Your task to perform on an android device: Search for "corsair k70" on target.com, select the first entry, and add it to the cart. Image 0: 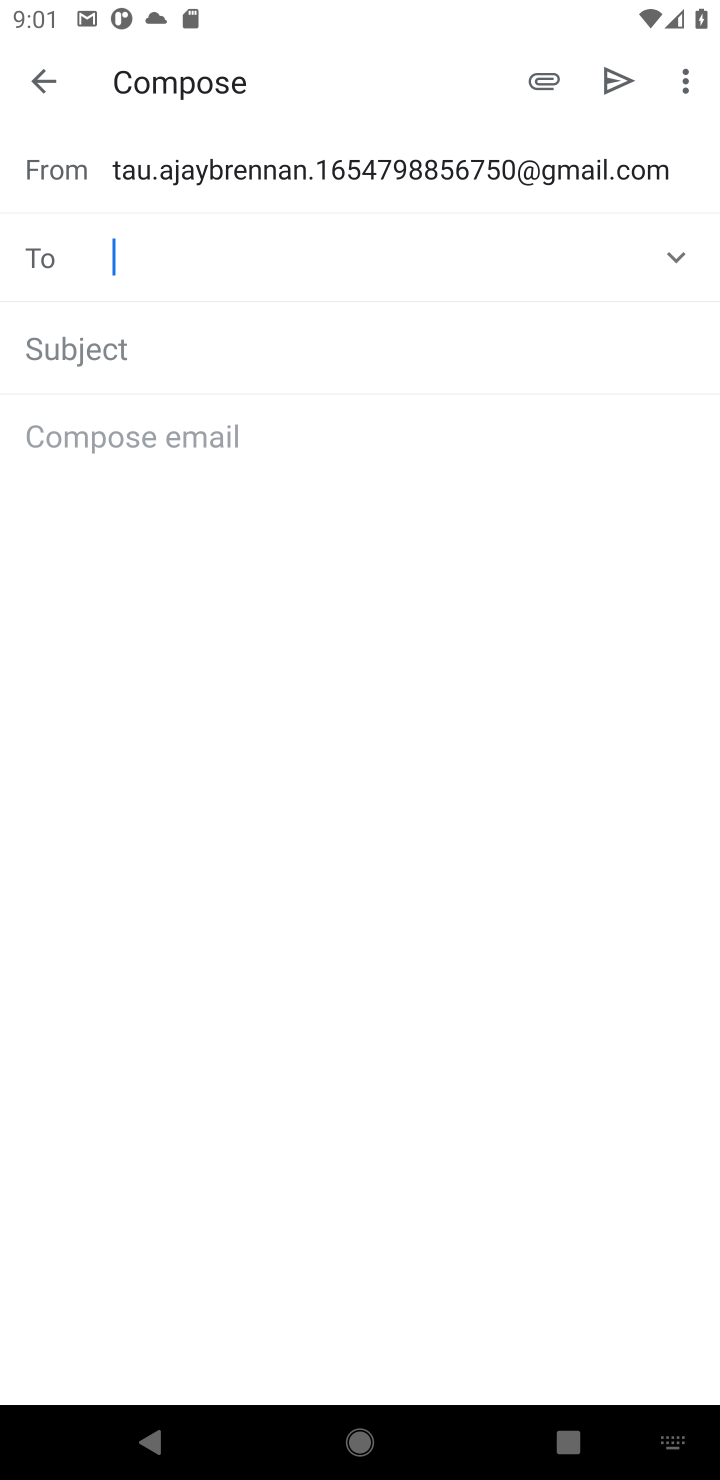
Step 0: press home button
Your task to perform on an android device: Search for "corsair k70" on target.com, select the first entry, and add it to the cart. Image 1: 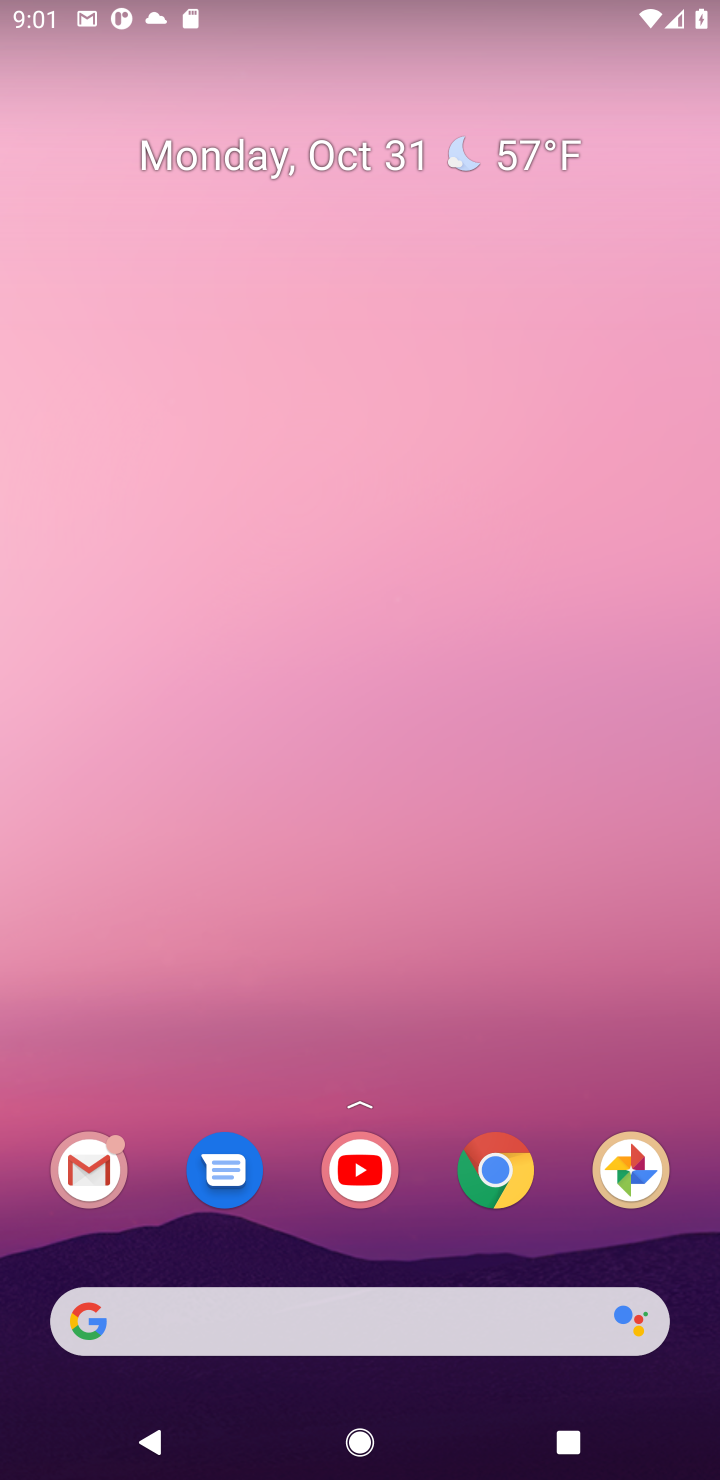
Step 1: click (468, 1153)
Your task to perform on an android device: Search for "corsair k70" on target.com, select the first entry, and add it to the cart. Image 2: 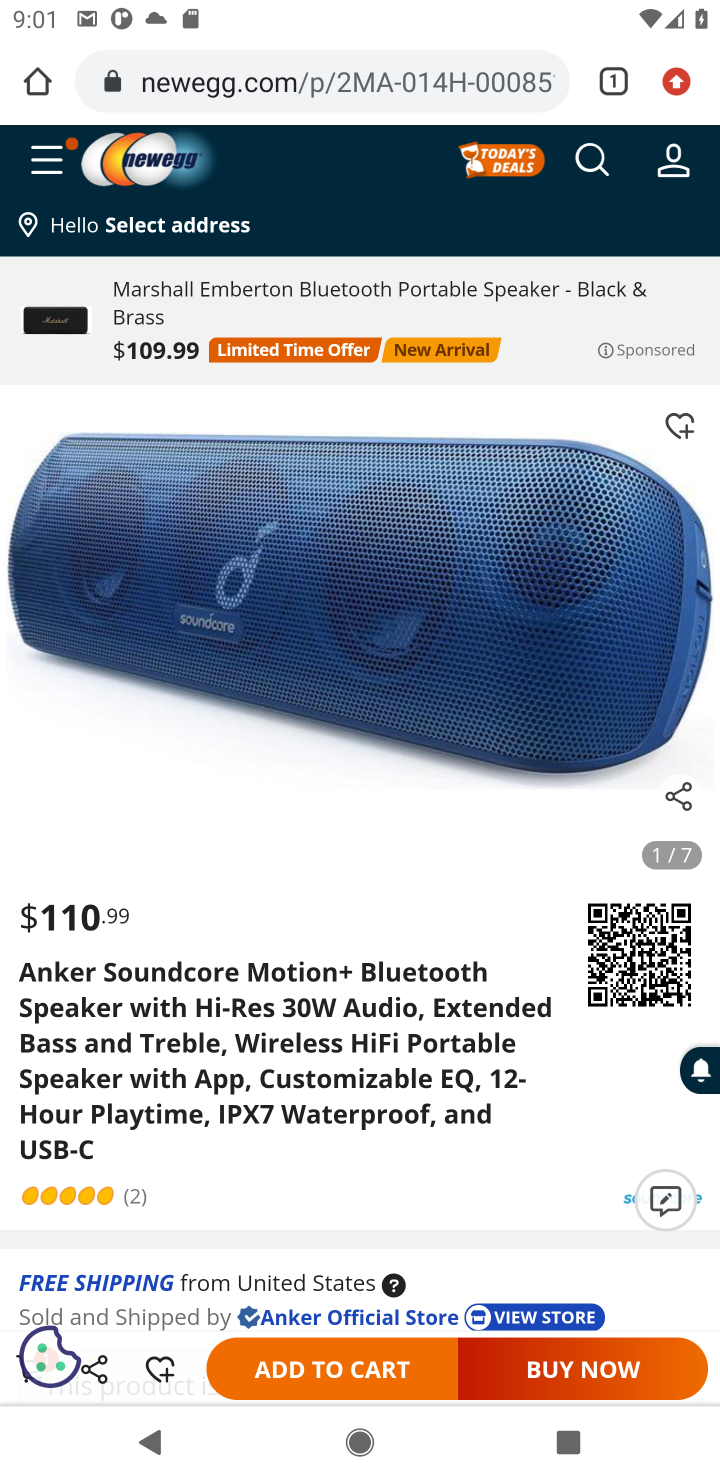
Step 2: click (416, 65)
Your task to perform on an android device: Search for "corsair k70" on target.com, select the first entry, and add it to the cart. Image 3: 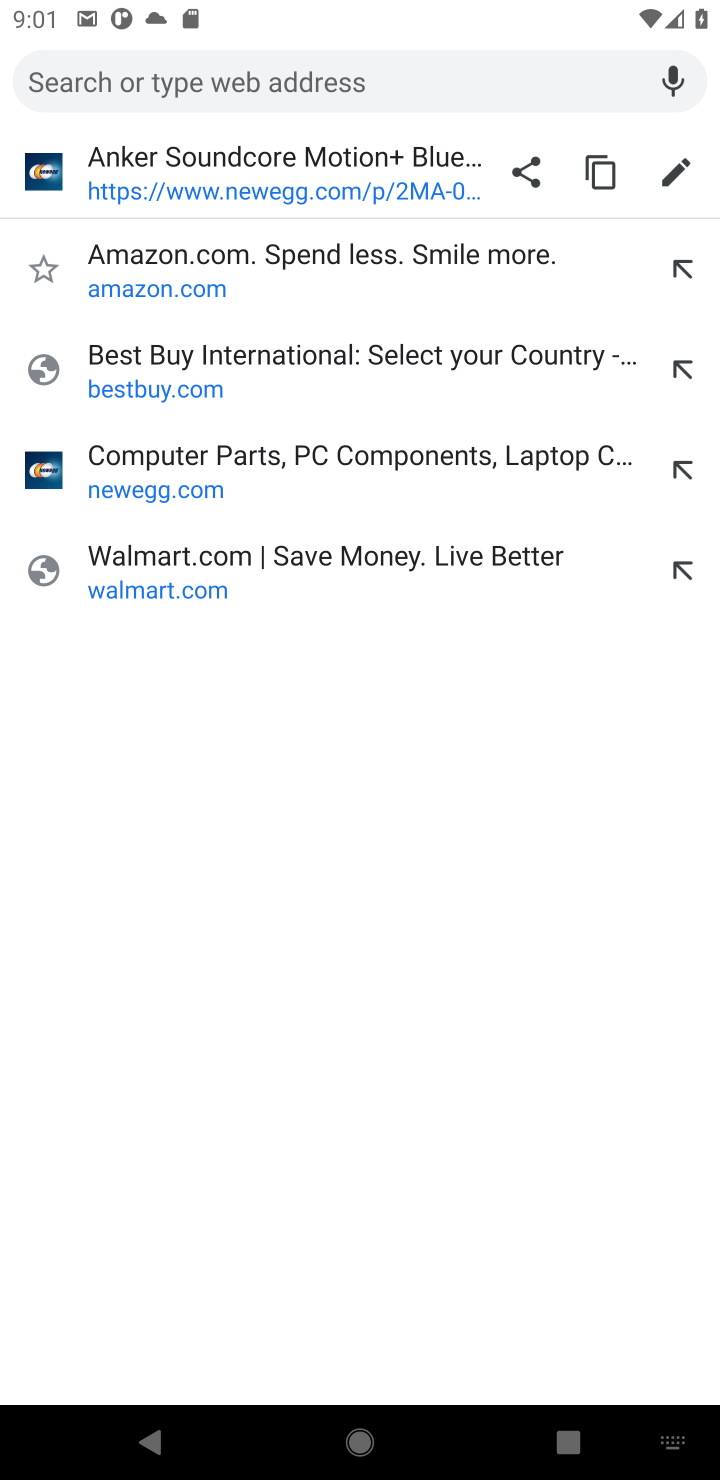
Step 3: type "target"
Your task to perform on an android device: Search for "corsair k70" on target.com, select the first entry, and add it to the cart. Image 4: 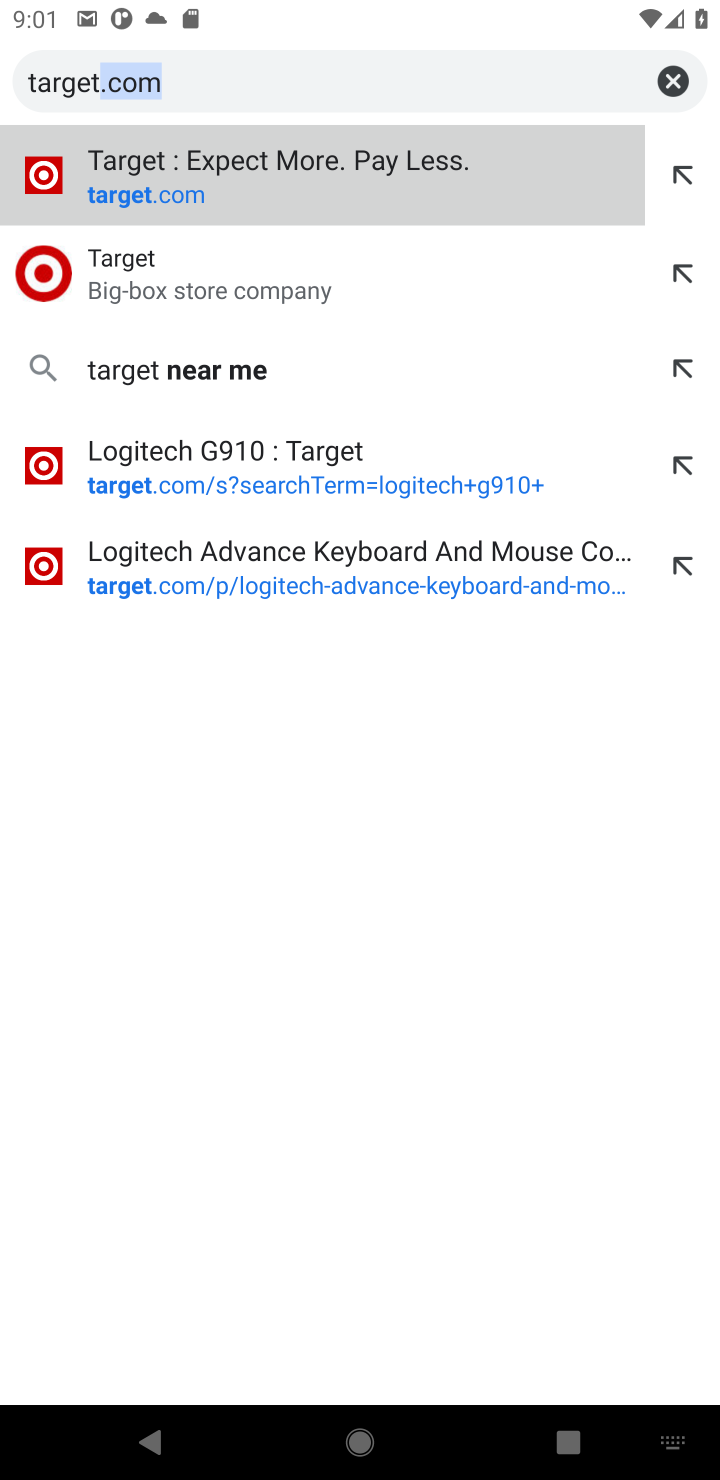
Step 4: click (203, 211)
Your task to perform on an android device: Search for "corsair k70" on target.com, select the first entry, and add it to the cart. Image 5: 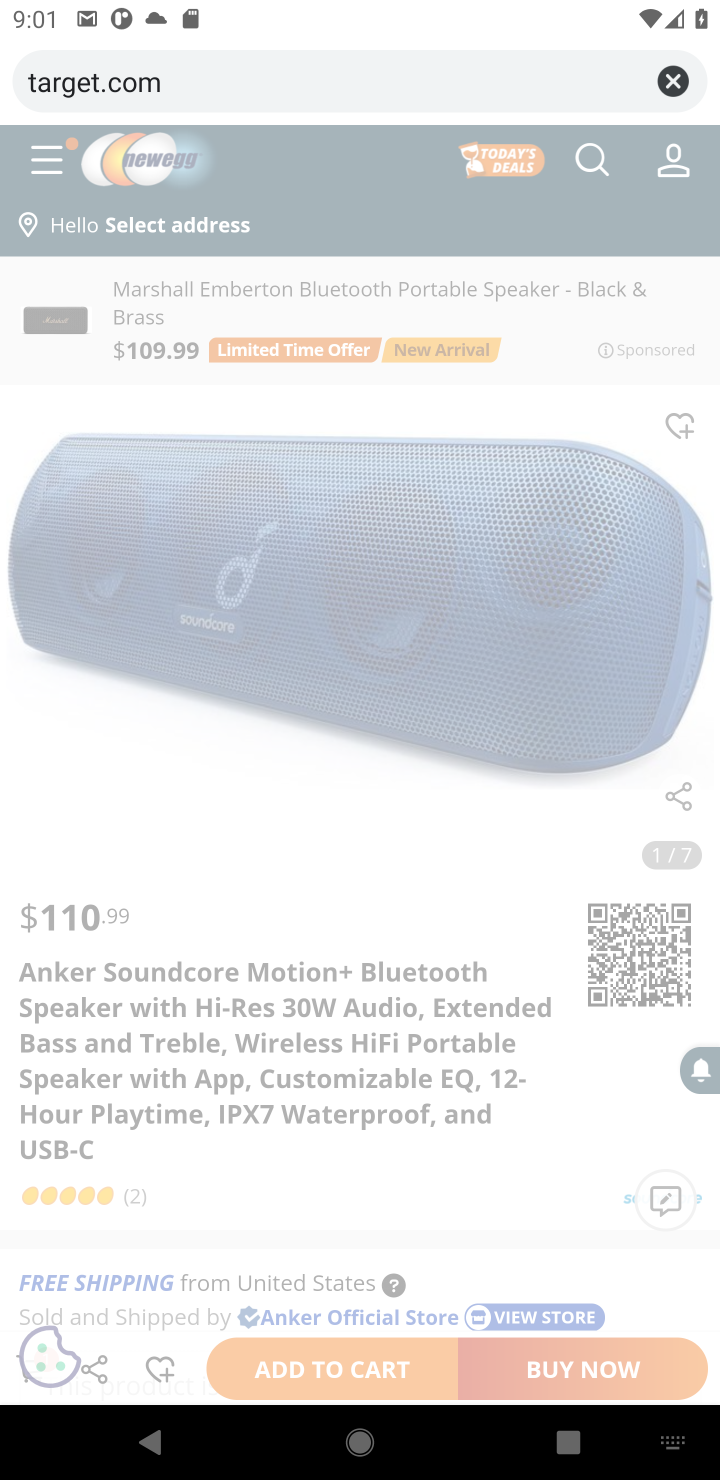
Step 5: click (179, 192)
Your task to perform on an android device: Search for "corsair k70" on target.com, select the first entry, and add it to the cart. Image 6: 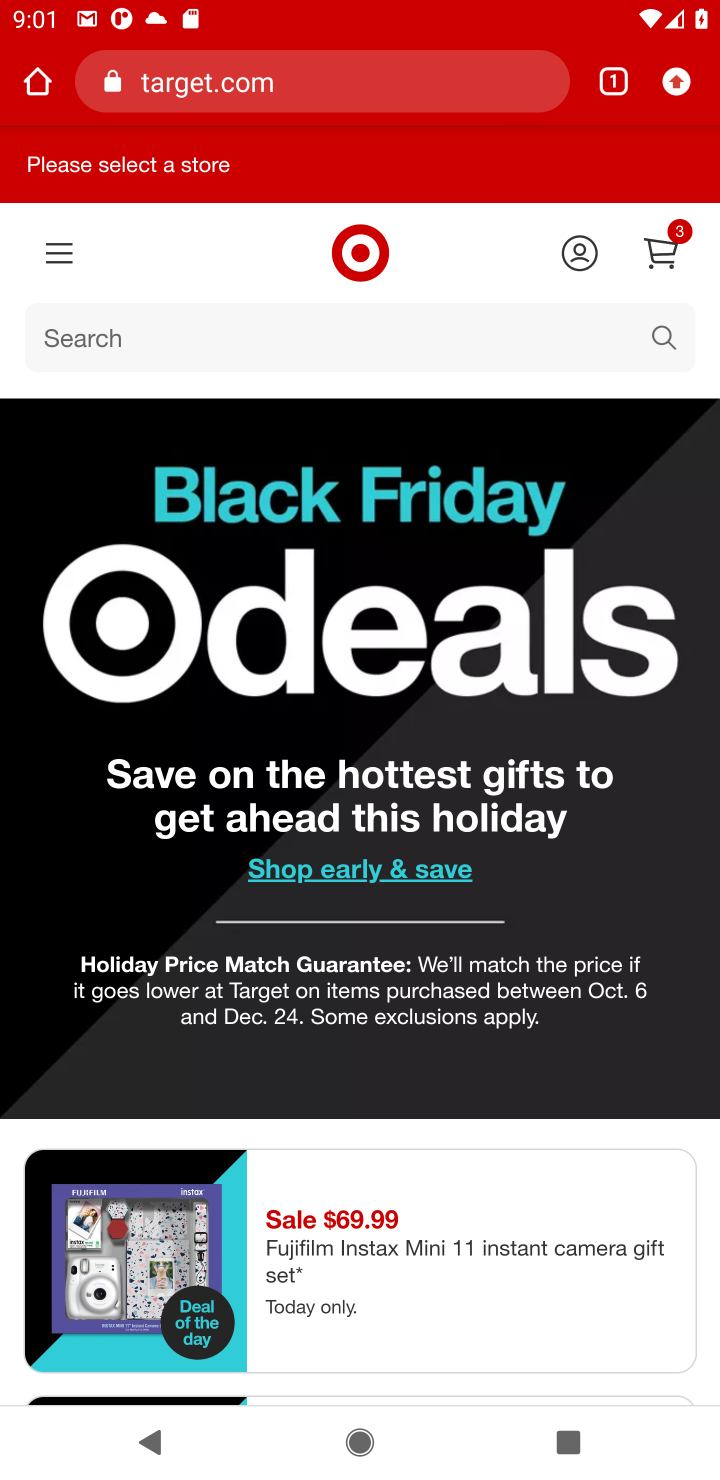
Step 6: click (143, 345)
Your task to perform on an android device: Search for "corsair k70" on target.com, select the first entry, and add it to the cart. Image 7: 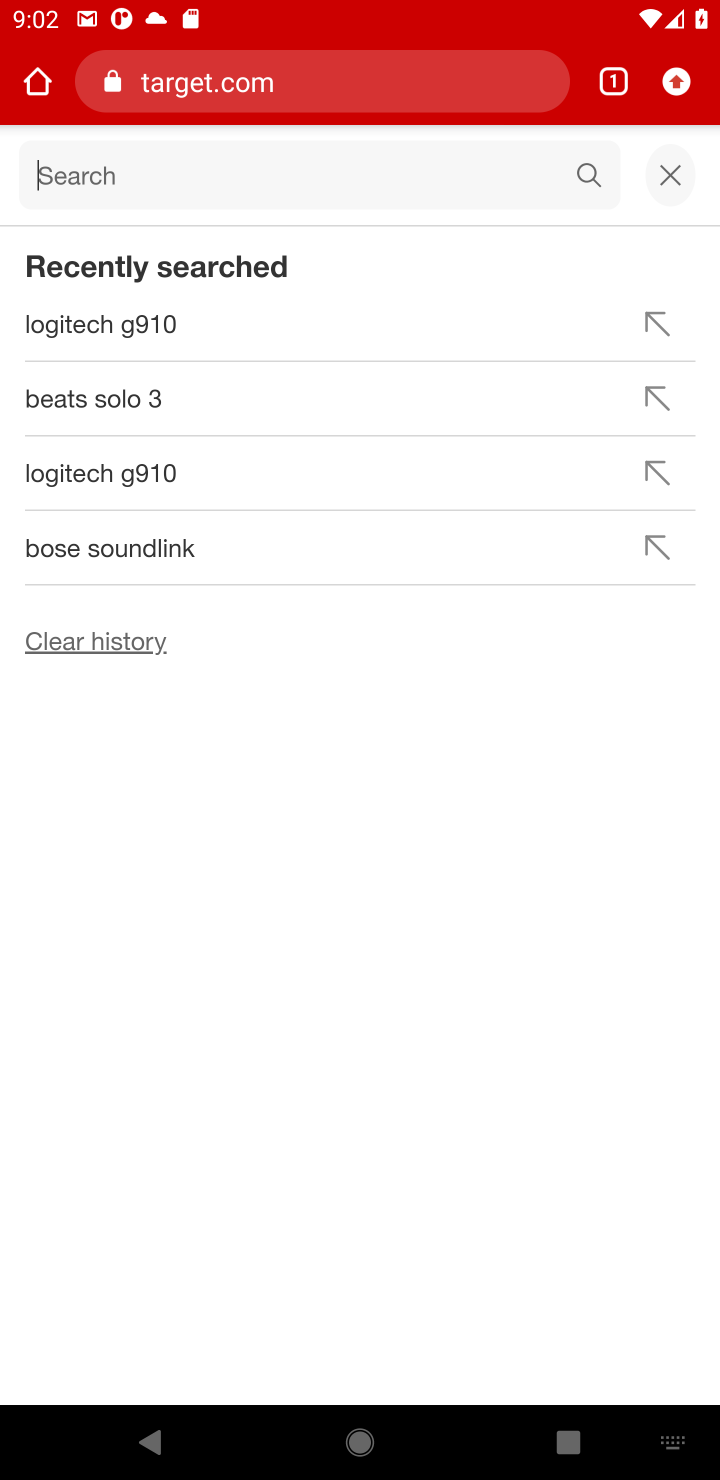
Step 7: type "corsair k70"
Your task to perform on an android device: Search for "corsair k70" on target.com, select the first entry, and add it to the cart. Image 8: 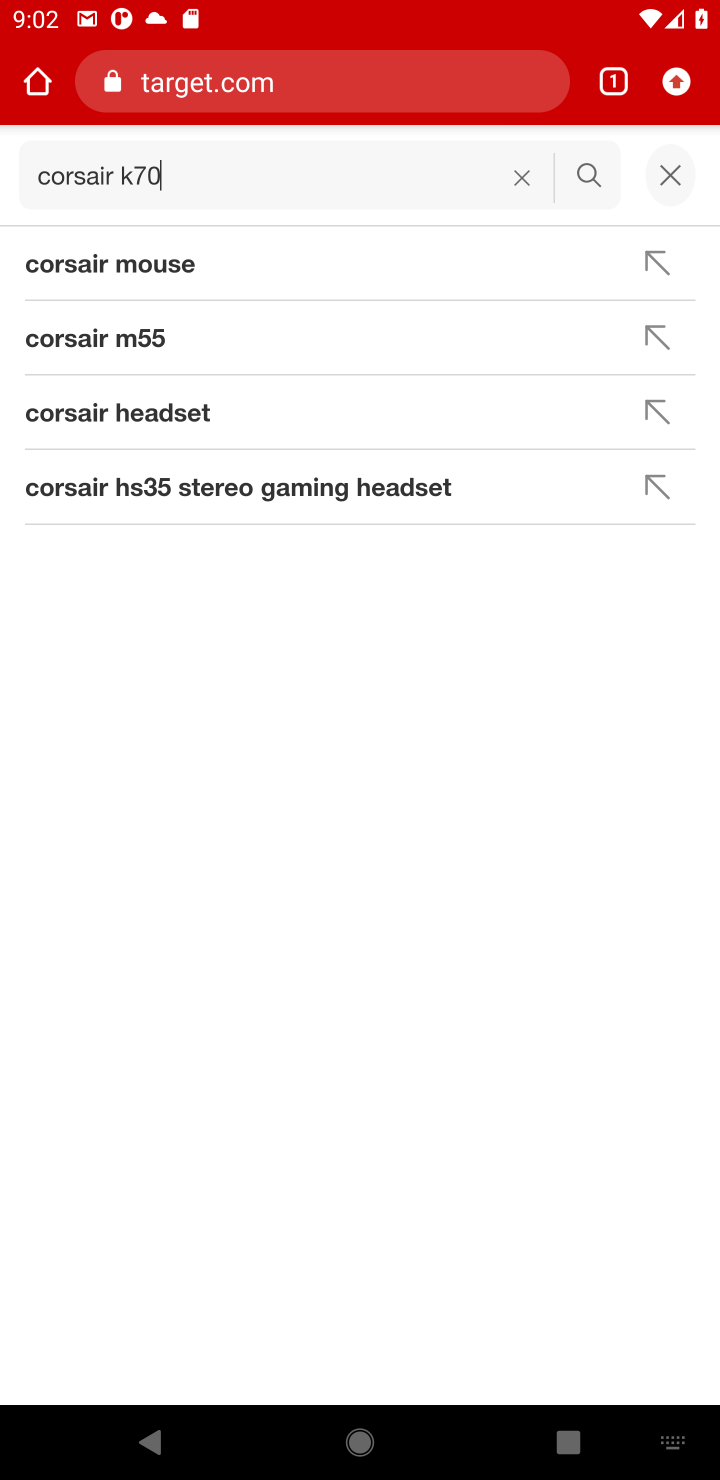
Step 8: click (606, 196)
Your task to perform on an android device: Search for "corsair k70" on target.com, select the first entry, and add it to the cart. Image 9: 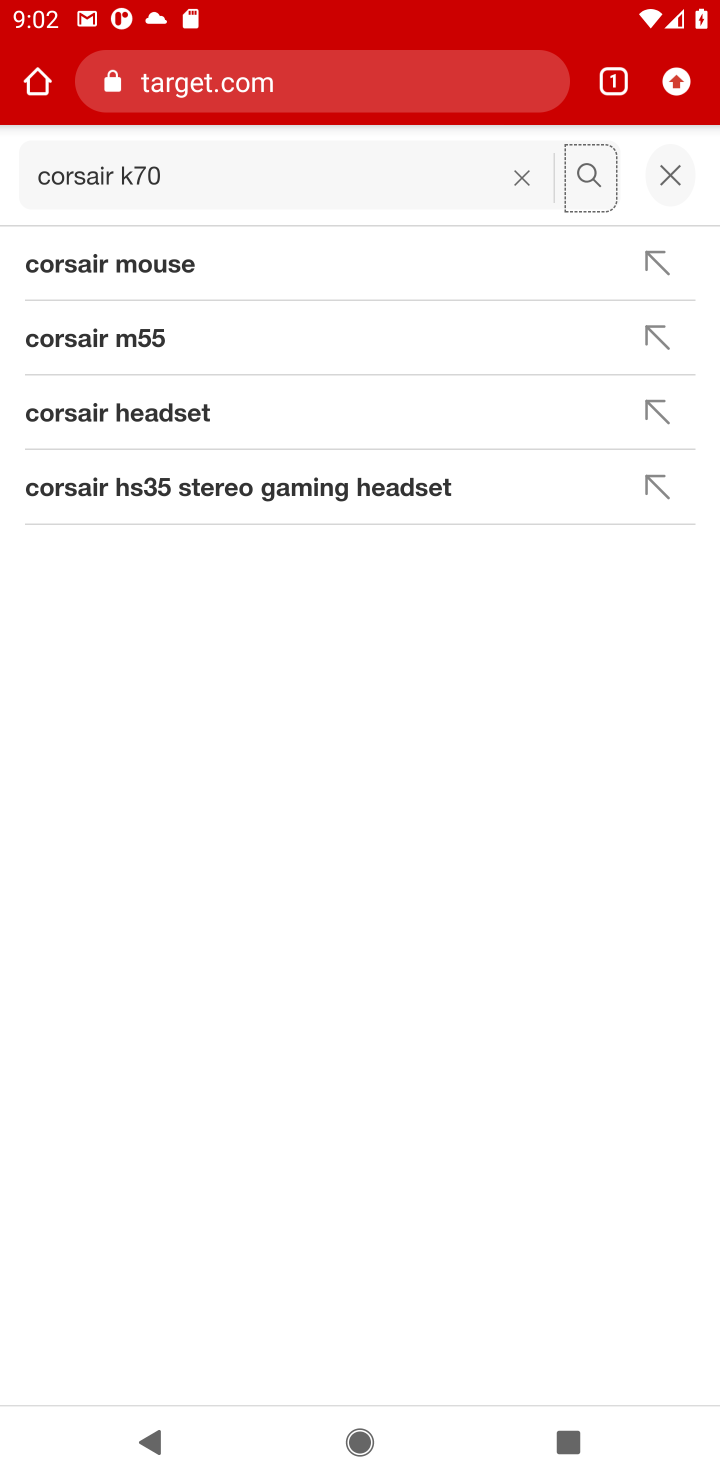
Step 9: click (592, 181)
Your task to perform on an android device: Search for "corsair k70" on target.com, select the first entry, and add it to the cart. Image 10: 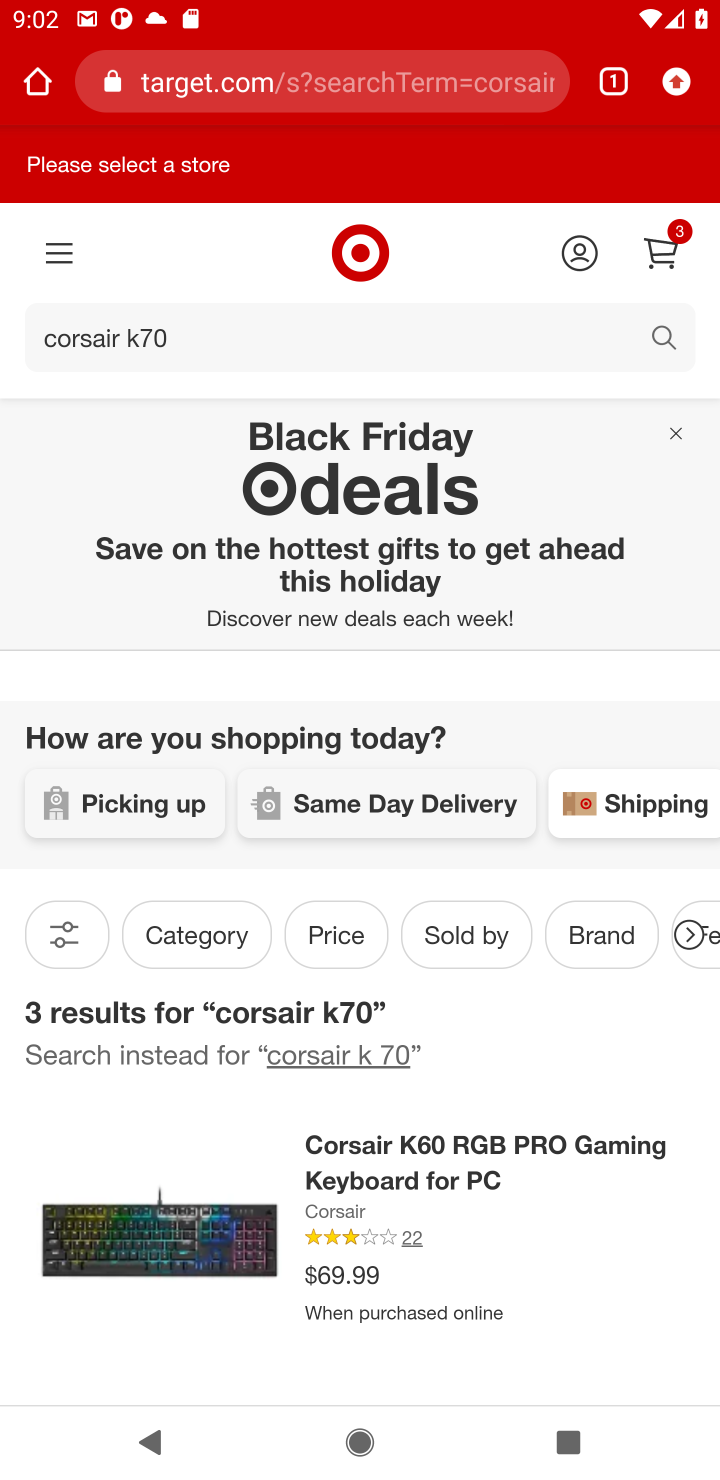
Step 10: task complete